Your task to perform on an android device: find photos in the google photos app Image 0: 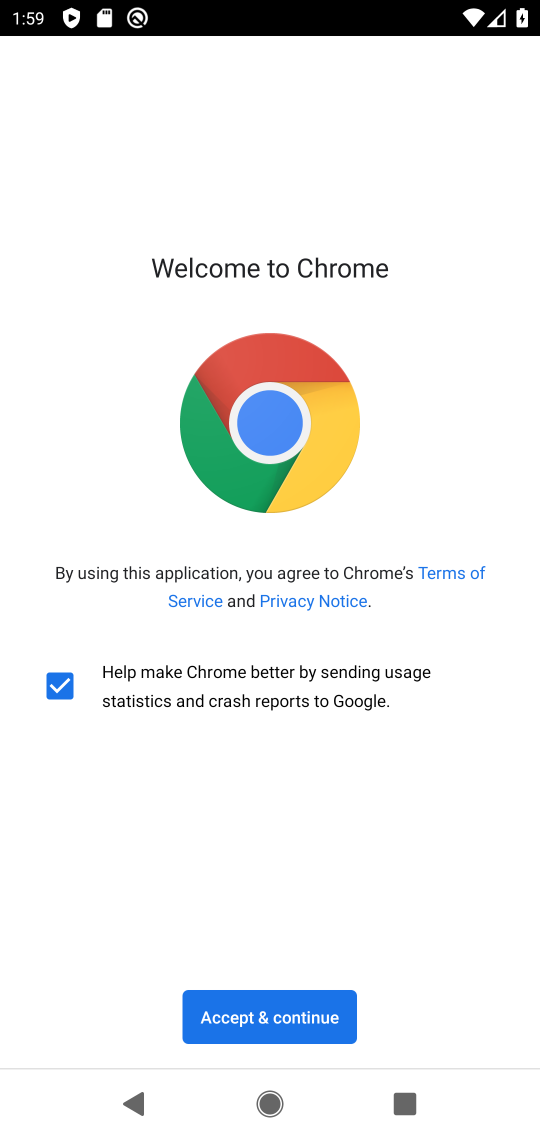
Step 0: press home button
Your task to perform on an android device: find photos in the google photos app Image 1: 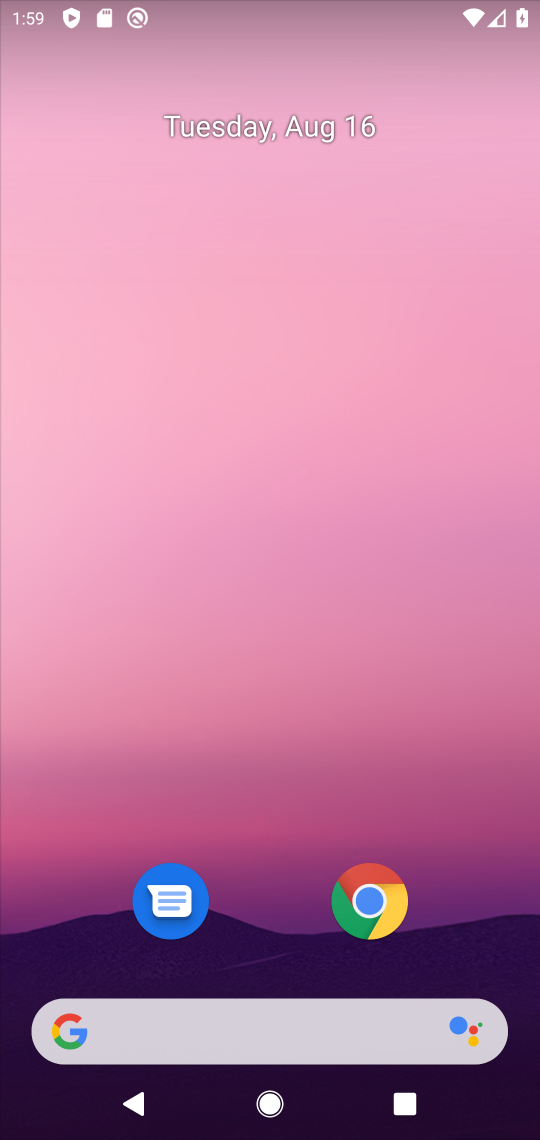
Step 1: drag from (270, 904) to (279, 127)
Your task to perform on an android device: find photos in the google photos app Image 2: 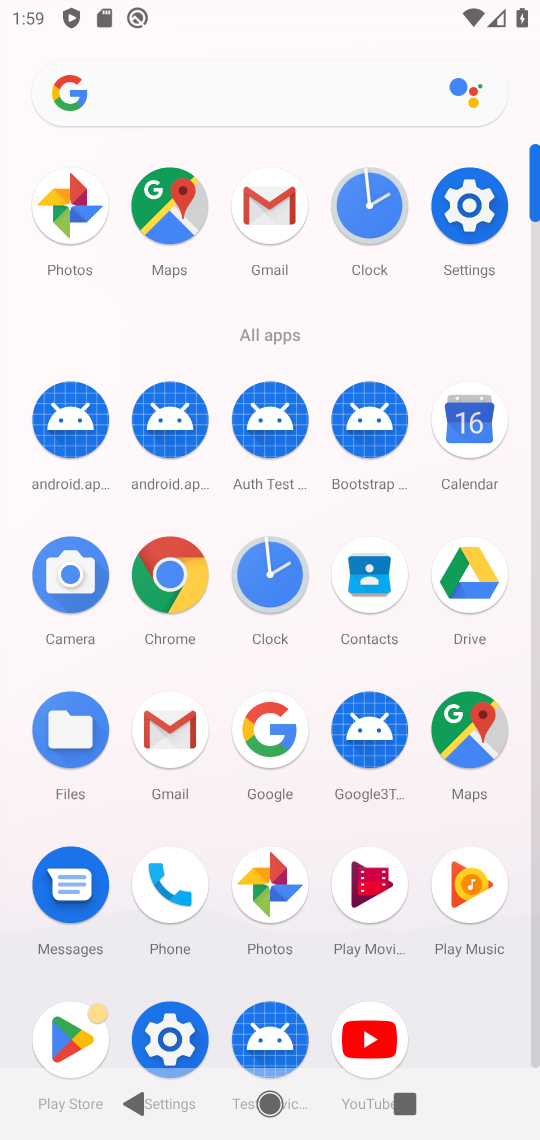
Step 2: click (269, 894)
Your task to perform on an android device: find photos in the google photos app Image 3: 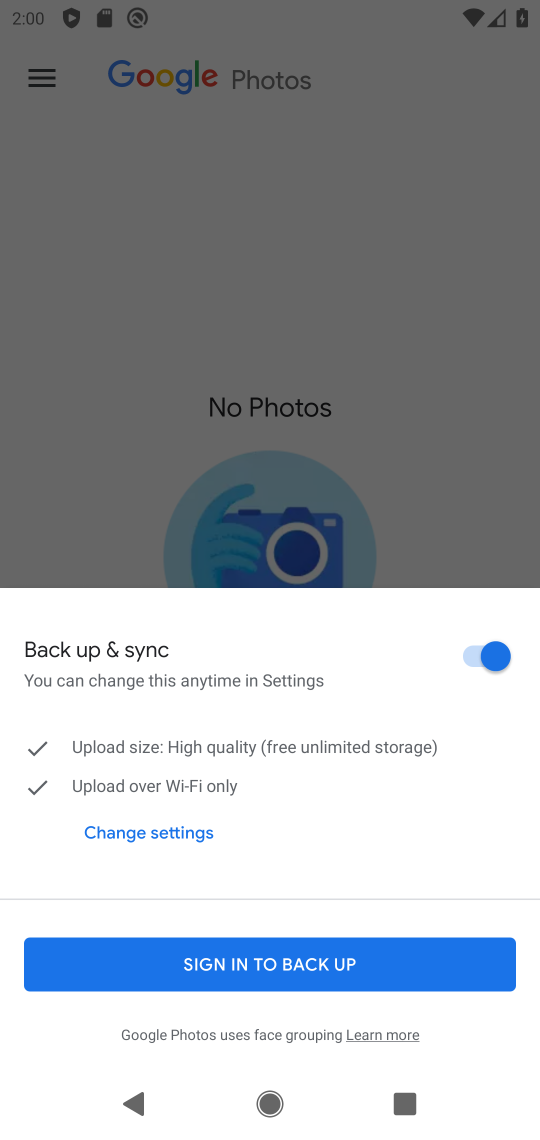
Step 3: click (244, 966)
Your task to perform on an android device: find photos in the google photos app Image 4: 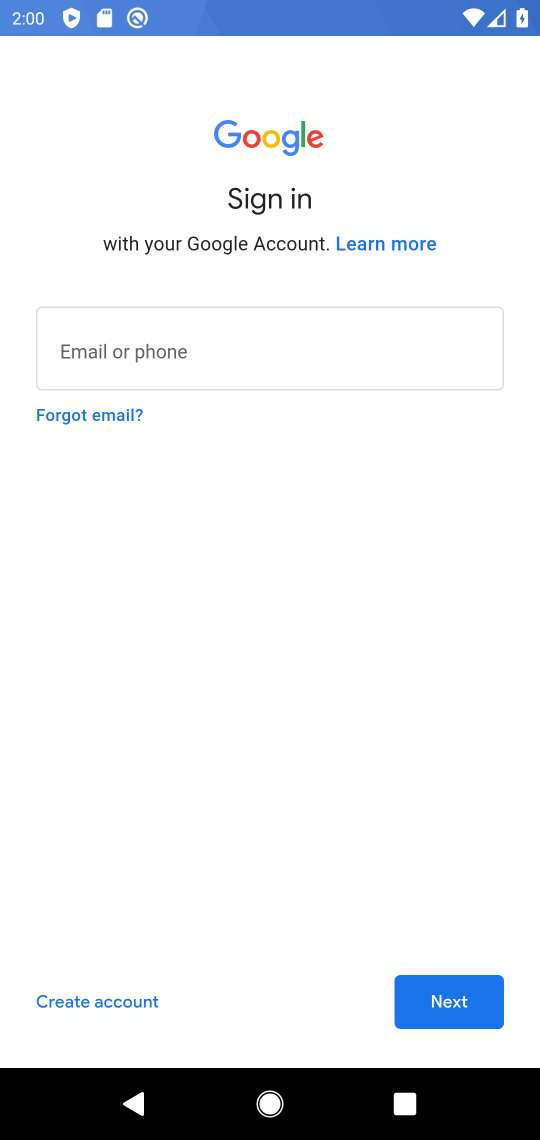
Step 4: task complete